Your task to perform on an android device: turn off translation in the chrome app Image 0: 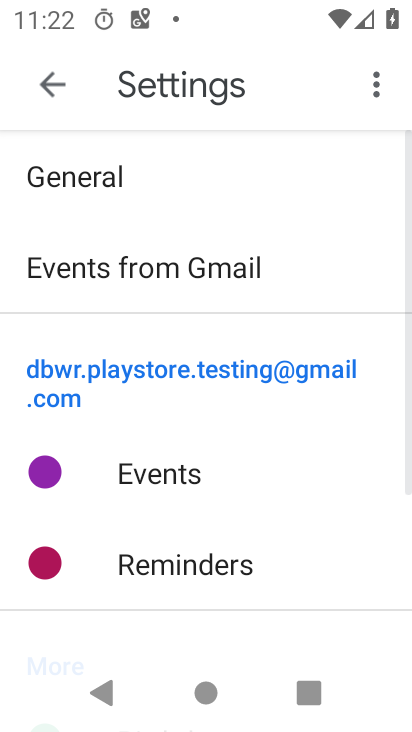
Step 0: press home button
Your task to perform on an android device: turn off translation in the chrome app Image 1: 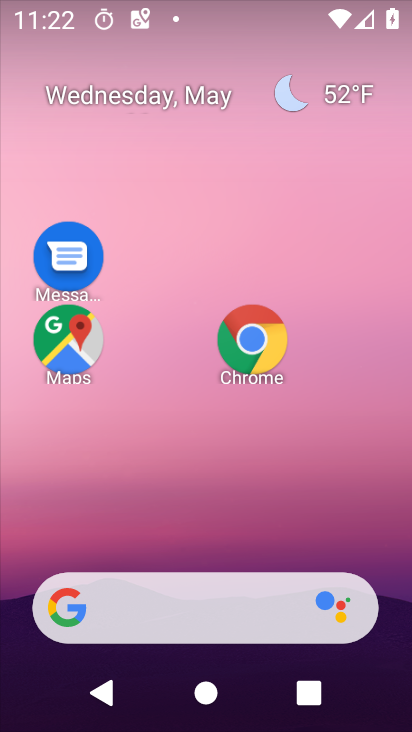
Step 1: click (258, 341)
Your task to perform on an android device: turn off translation in the chrome app Image 2: 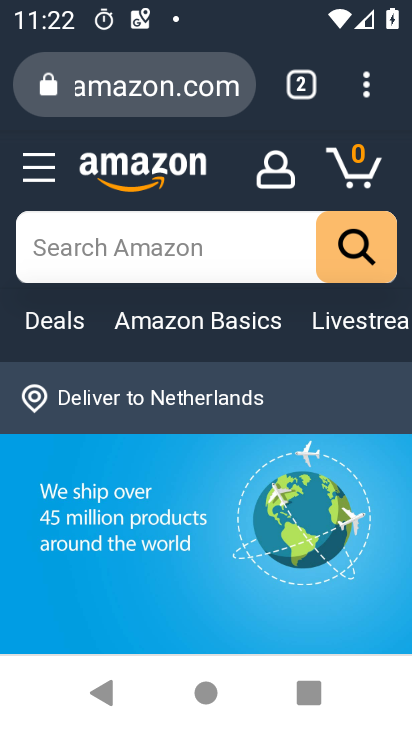
Step 2: click (357, 96)
Your task to perform on an android device: turn off translation in the chrome app Image 3: 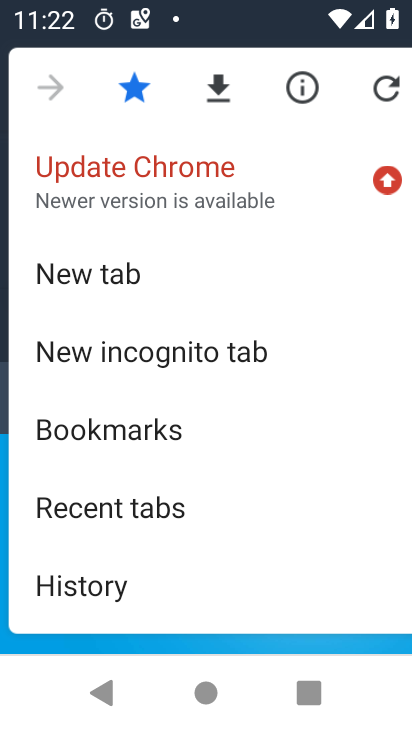
Step 3: drag from (264, 514) to (234, 140)
Your task to perform on an android device: turn off translation in the chrome app Image 4: 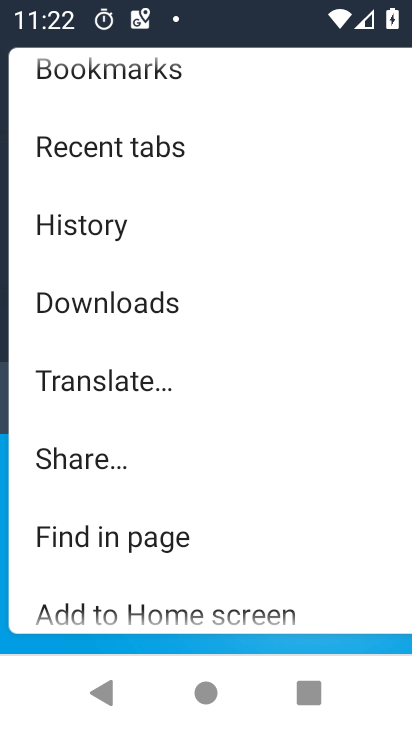
Step 4: drag from (262, 548) to (250, 129)
Your task to perform on an android device: turn off translation in the chrome app Image 5: 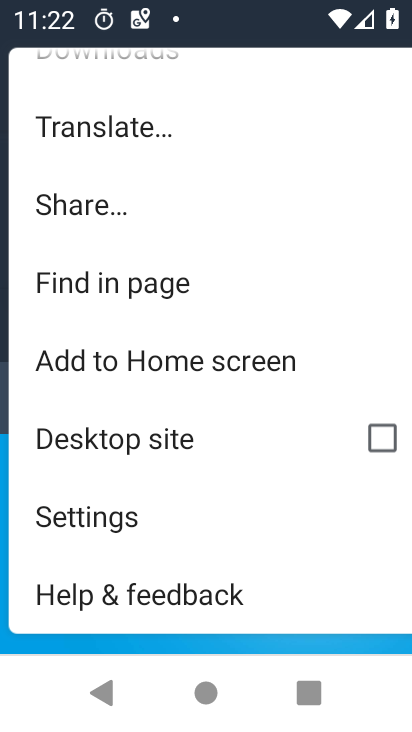
Step 5: click (121, 518)
Your task to perform on an android device: turn off translation in the chrome app Image 6: 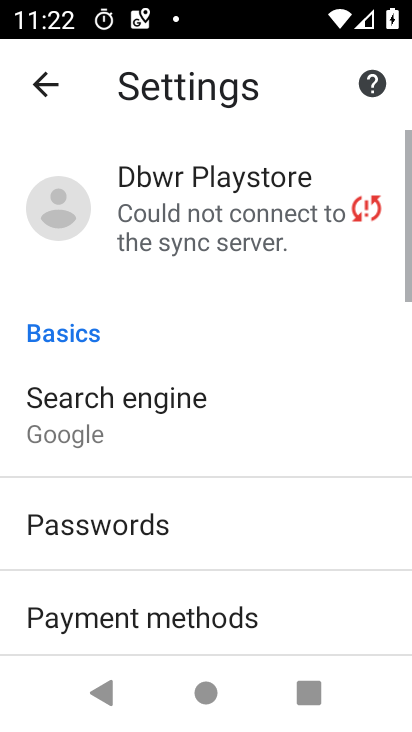
Step 6: drag from (244, 552) to (278, 97)
Your task to perform on an android device: turn off translation in the chrome app Image 7: 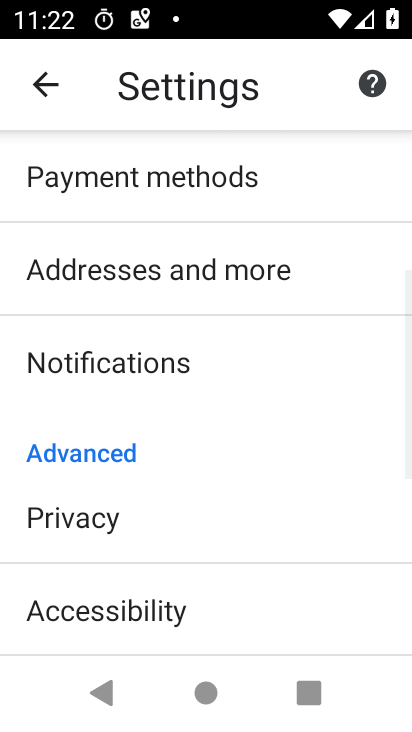
Step 7: drag from (249, 538) to (219, 196)
Your task to perform on an android device: turn off translation in the chrome app Image 8: 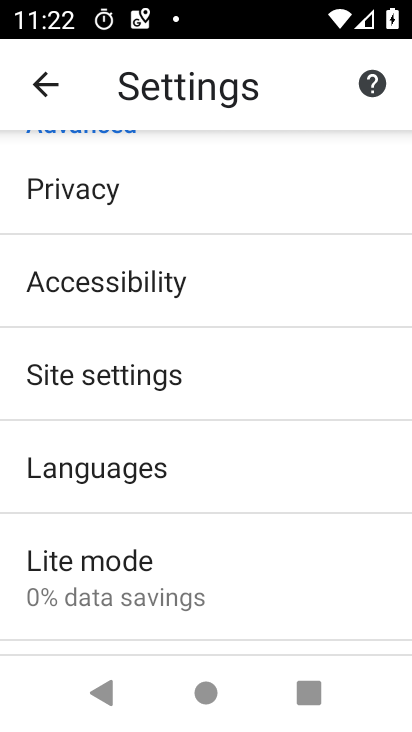
Step 8: click (179, 456)
Your task to perform on an android device: turn off translation in the chrome app Image 9: 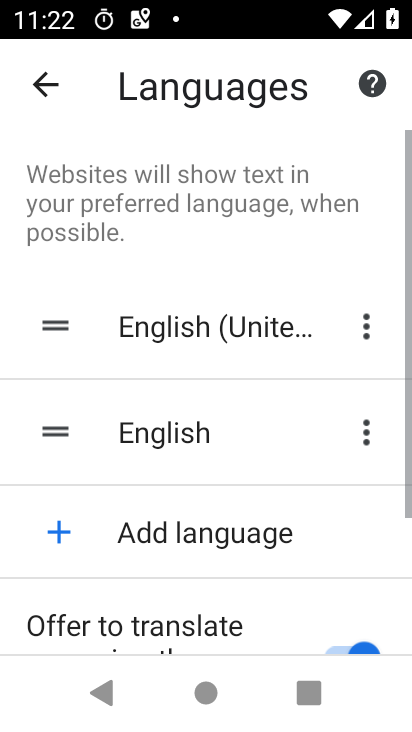
Step 9: drag from (328, 578) to (313, 152)
Your task to perform on an android device: turn off translation in the chrome app Image 10: 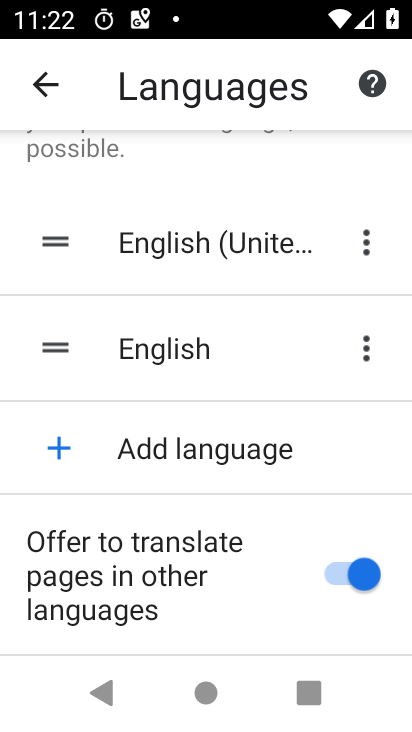
Step 10: click (355, 577)
Your task to perform on an android device: turn off translation in the chrome app Image 11: 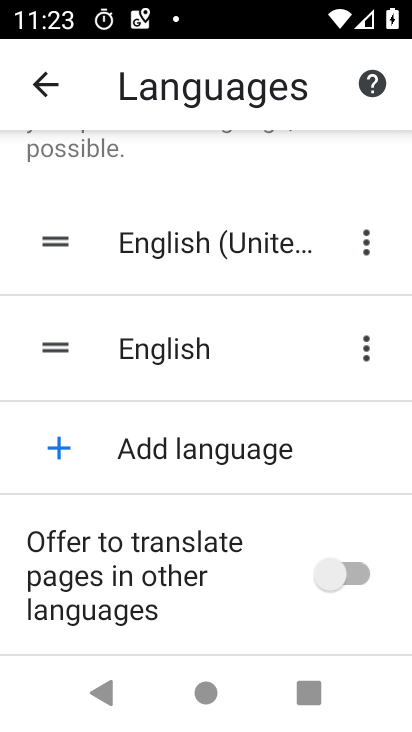
Step 11: task complete